Your task to perform on an android device: turn pop-ups off in chrome Image 0: 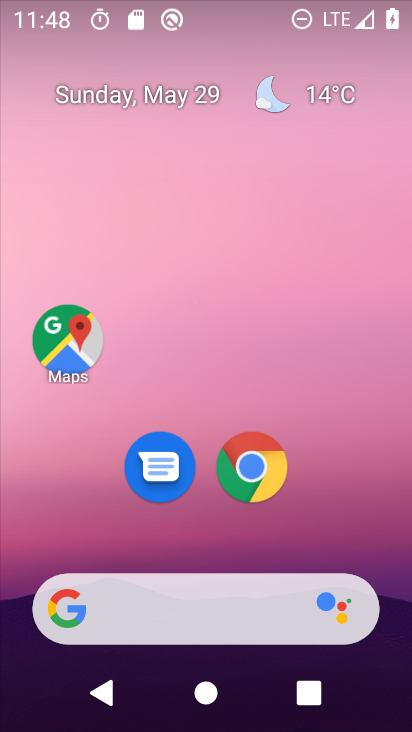
Step 0: click (241, 480)
Your task to perform on an android device: turn pop-ups off in chrome Image 1: 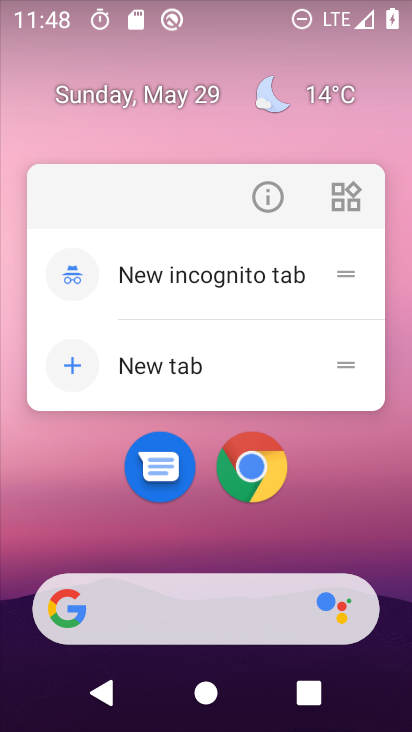
Step 1: click (276, 482)
Your task to perform on an android device: turn pop-ups off in chrome Image 2: 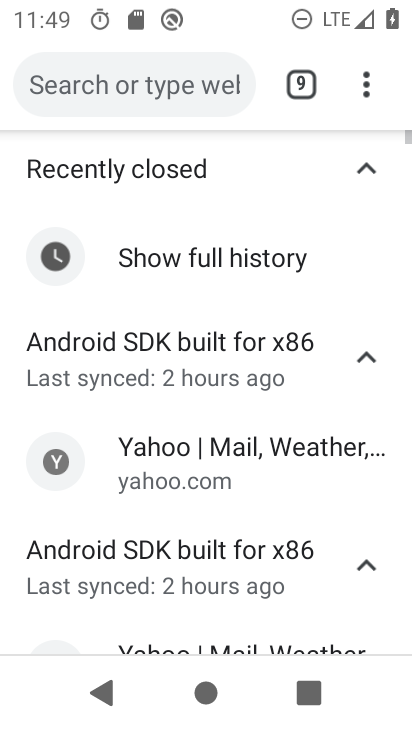
Step 2: drag from (372, 81) to (117, 502)
Your task to perform on an android device: turn pop-ups off in chrome Image 3: 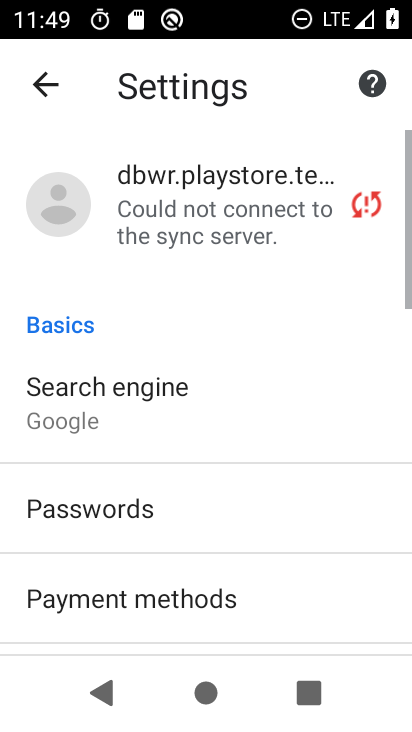
Step 3: drag from (227, 531) to (255, 242)
Your task to perform on an android device: turn pop-ups off in chrome Image 4: 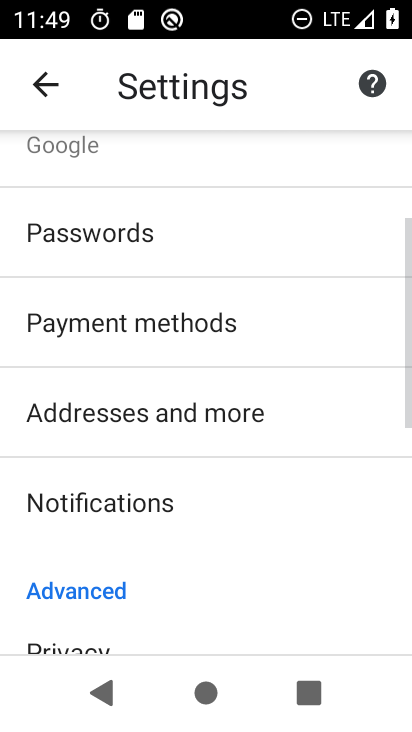
Step 4: drag from (224, 503) to (254, 229)
Your task to perform on an android device: turn pop-ups off in chrome Image 5: 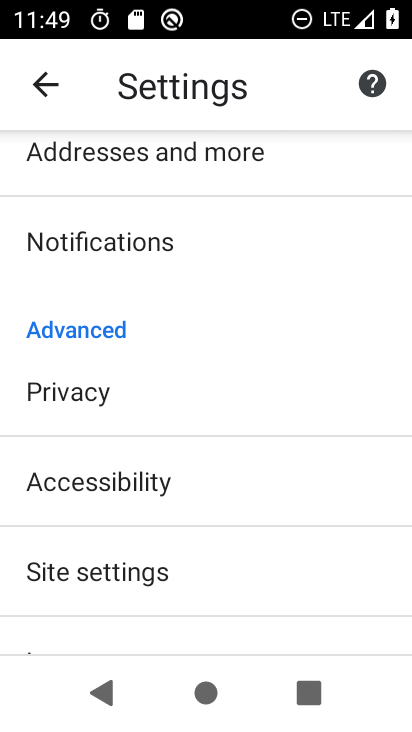
Step 5: drag from (204, 524) to (223, 351)
Your task to perform on an android device: turn pop-ups off in chrome Image 6: 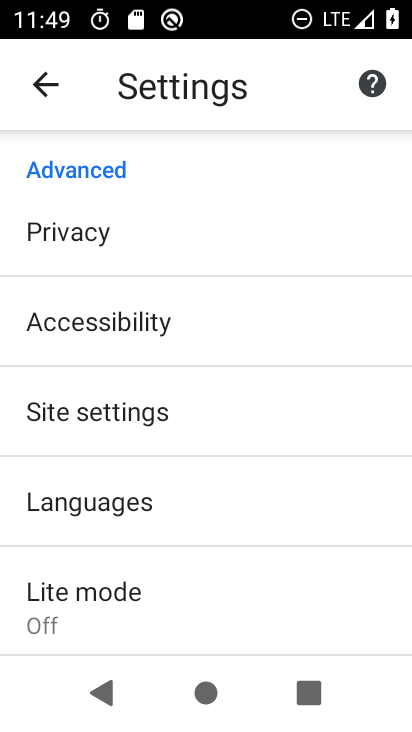
Step 6: click (192, 409)
Your task to perform on an android device: turn pop-ups off in chrome Image 7: 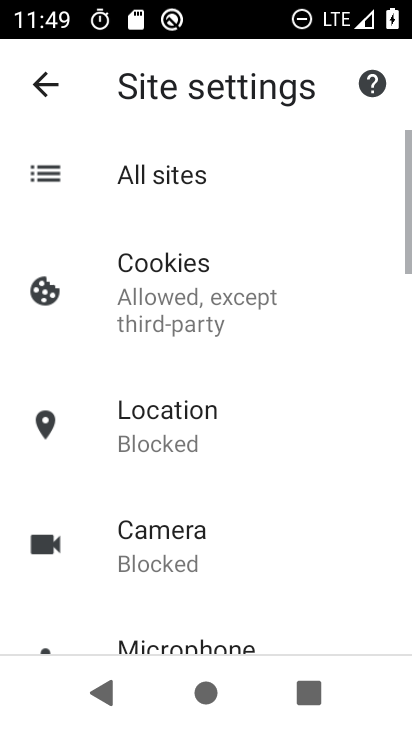
Step 7: drag from (205, 548) to (217, 264)
Your task to perform on an android device: turn pop-ups off in chrome Image 8: 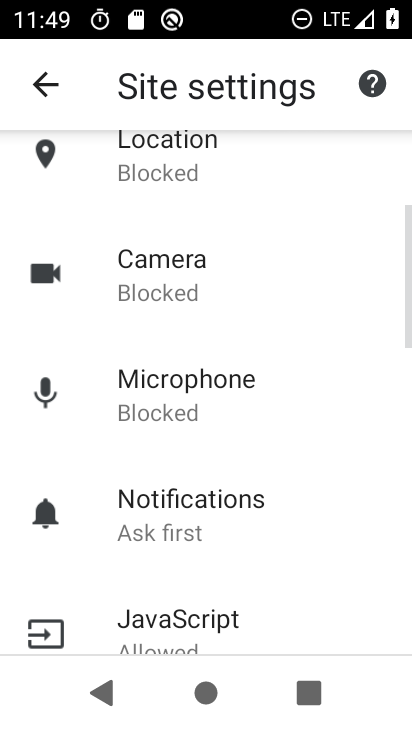
Step 8: drag from (211, 487) to (223, 283)
Your task to perform on an android device: turn pop-ups off in chrome Image 9: 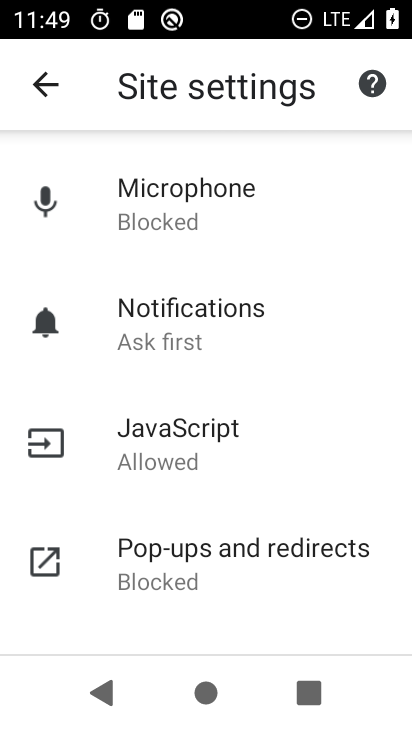
Step 9: drag from (239, 486) to (245, 252)
Your task to perform on an android device: turn pop-ups off in chrome Image 10: 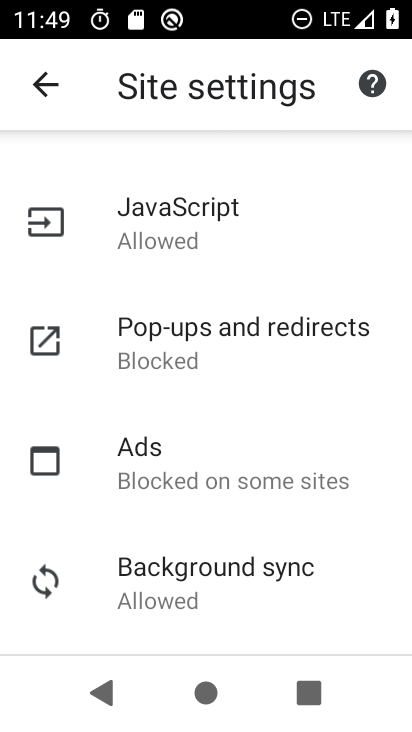
Step 10: click (234, 346)
Your task to perform on an android device: turn pop-ups off in chrome Image 11: 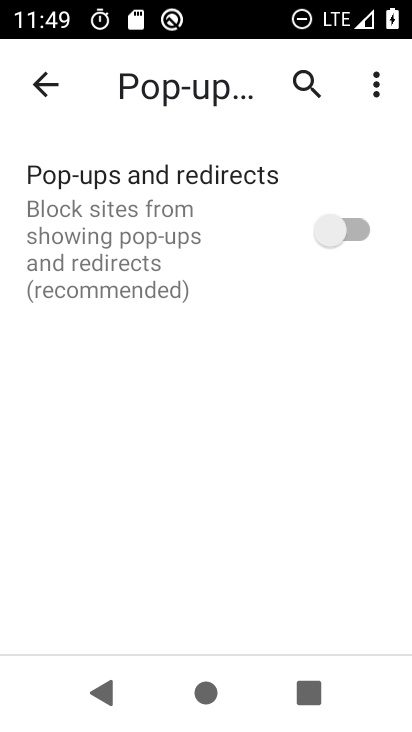
Step 11: task complete